Your task to perform on an android device: What's the weather going to be this weekend? Image 0: 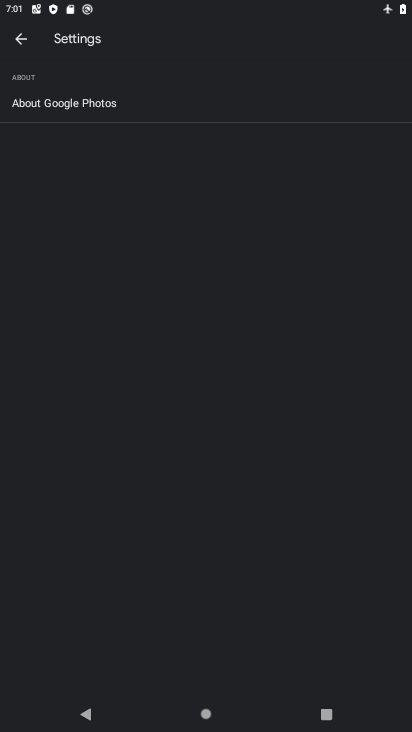
Step 0: press home button
Your task to perform on an android device: What's the weather going to be this weekend? Image 1: 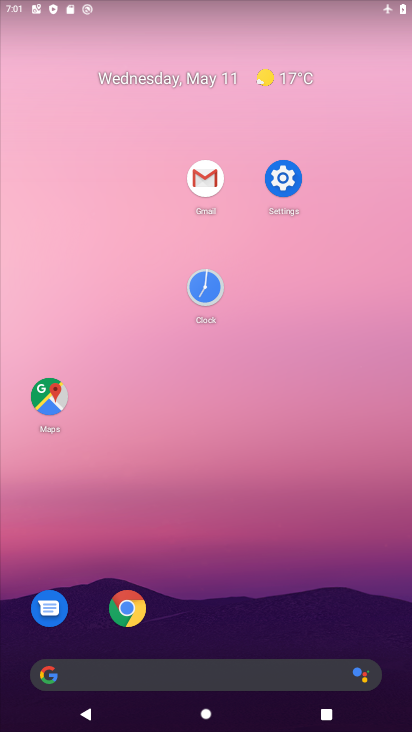
Step 1: click (153, 665)
Your task to perform on an android device: What's the weather going to be this weekend? Image 2: 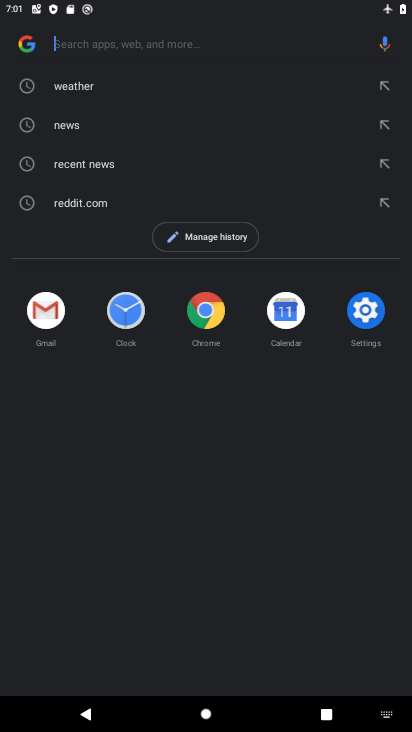
Step 2: click (141, 91)
Your task to perform on an android device: What's the weather going to be this weekend? Image 3: 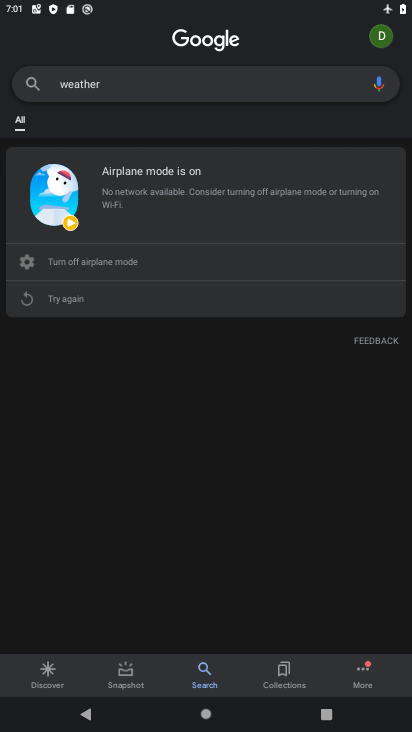
Step 3: task complete